Your task to perform on an android device: What's the weather going to be tomorrow? Image 0: 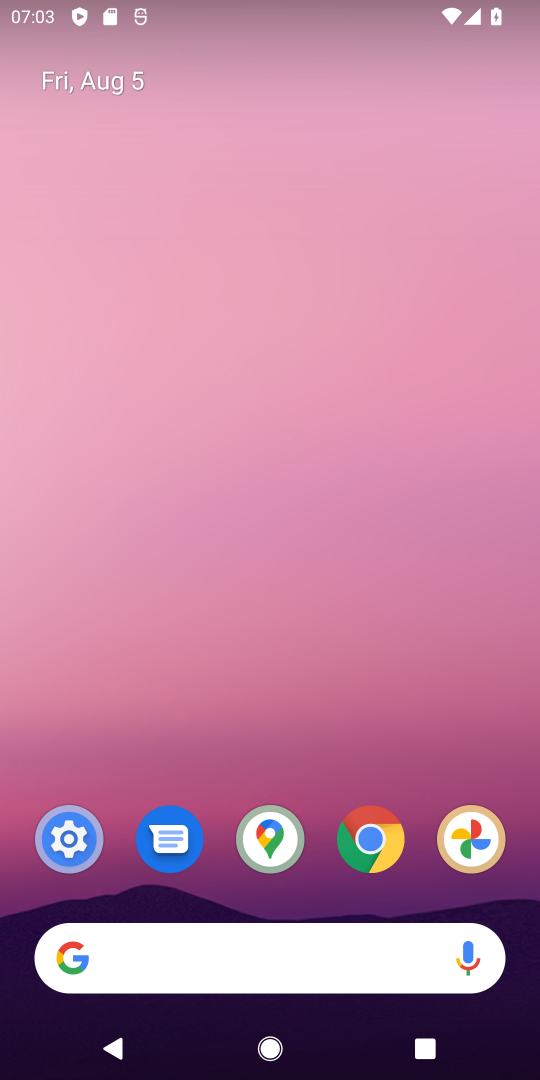
Step 0: drag from (269, 772) to (267, 109)
Your task to perform on an android device: What's the weather going to be tomorrow? Image 1: 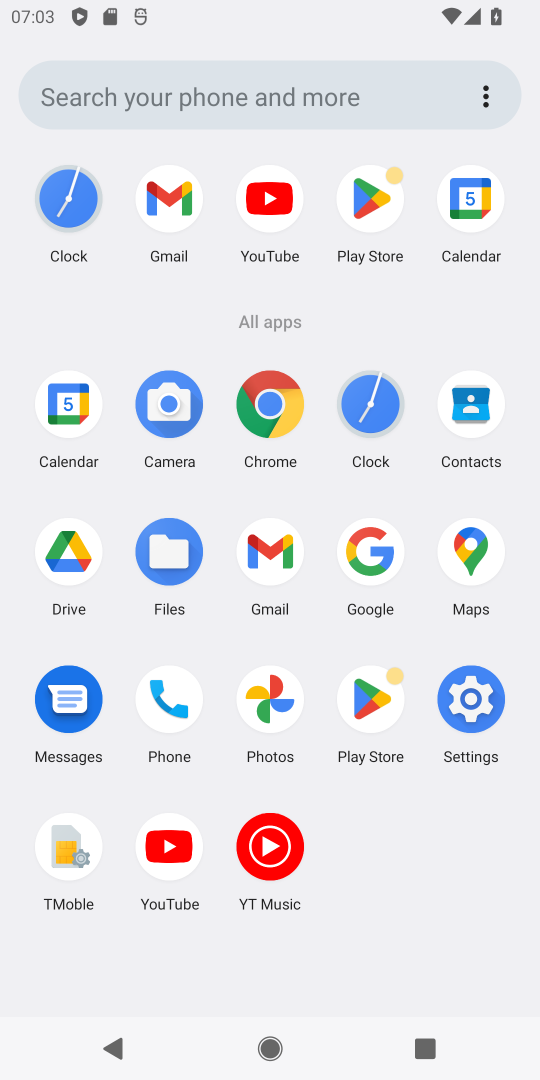
Step 1: click (363, 543)
Your task to perform on an android device: What's the weather going to be tomorrow? Image 2: 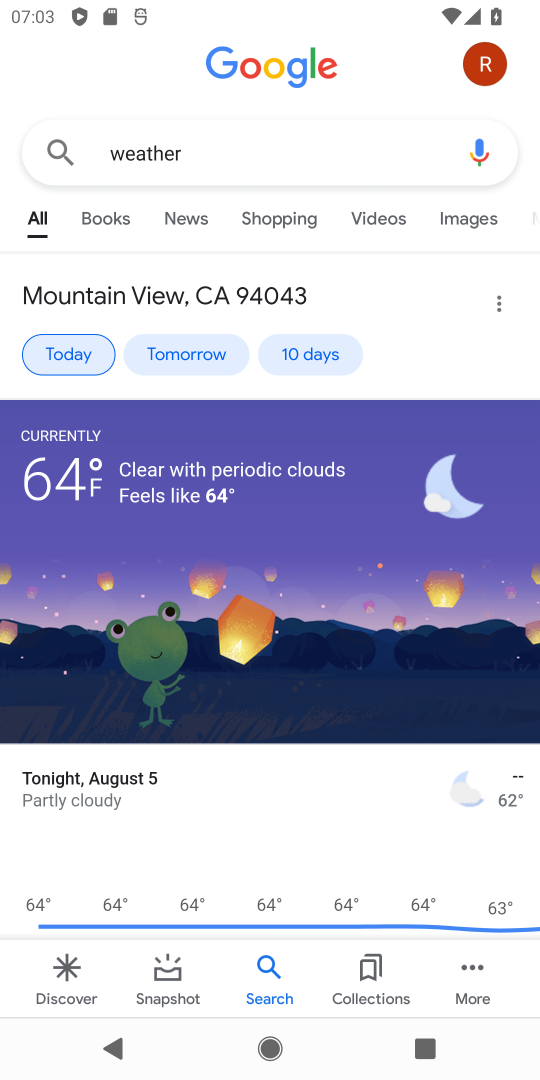
Step 2: click (183, 340)
Your task to perform on an android device: What's the weather going to be tomorrow? Image 3: 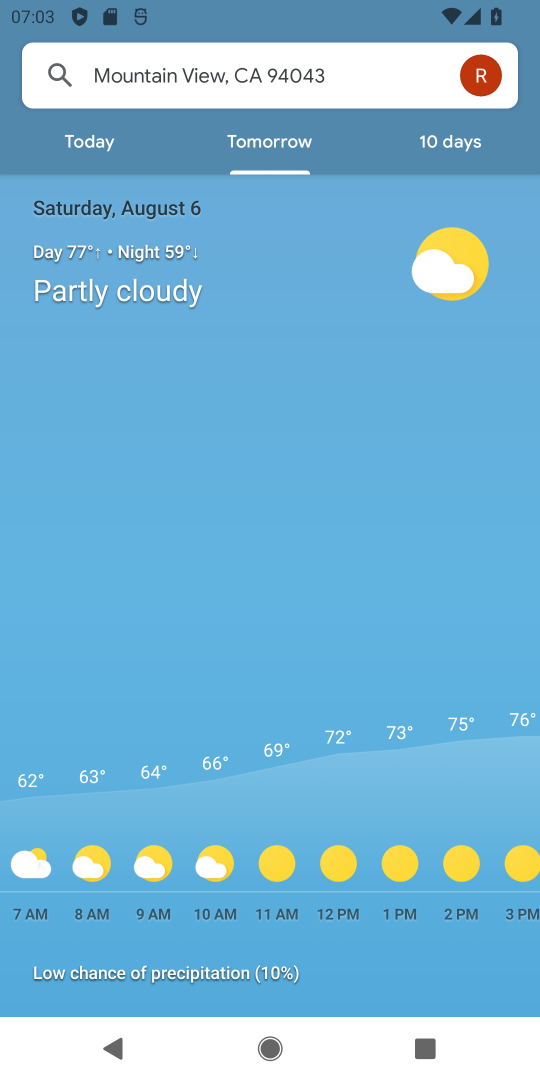
Step 3: task complete